Your task to perform on an android device: toggle airplane mode Image 0: 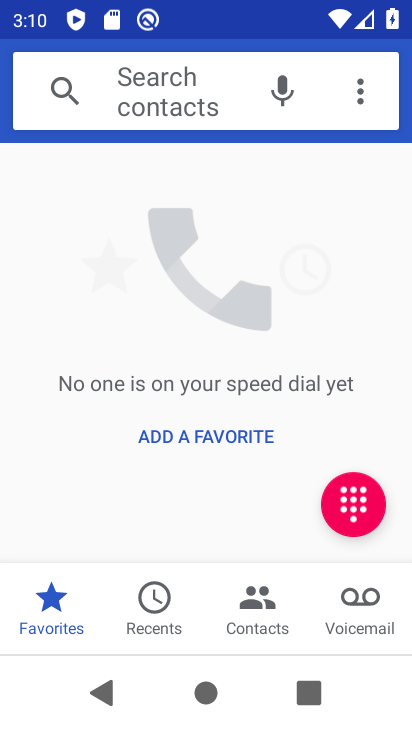
Step 0: press home button
Your task to perform on an android device: toggle airplane mode Image 1: 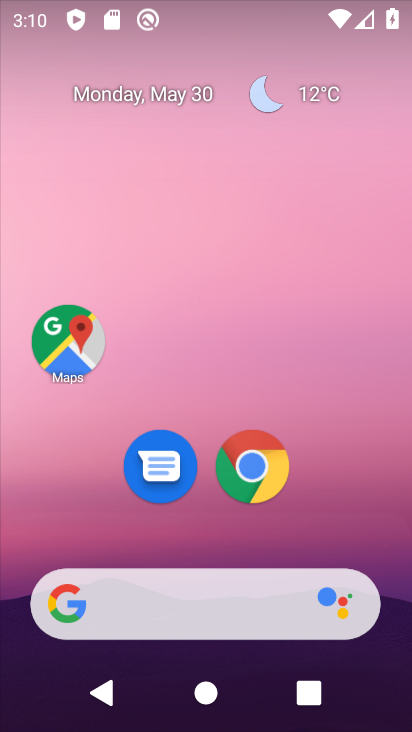
Step 1: drag from (324, 339) to (342, 88)
Your task to perform on an android device: toggle airplane mode Image 2: 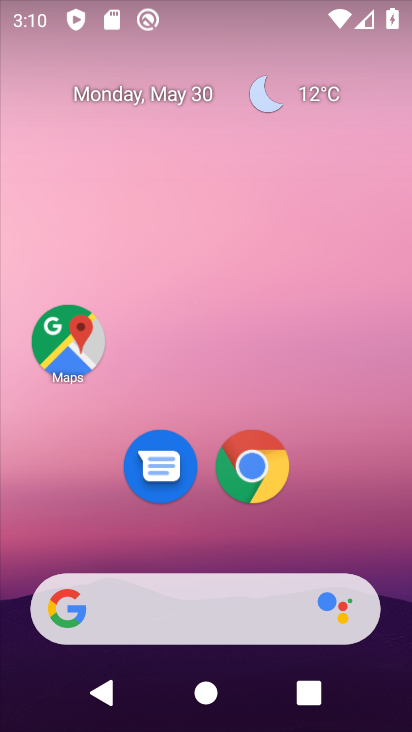
Step 2: drag from (303, 566) to (297, 113)
Your task to perform on an android device: toggle airplane mode Image 3: 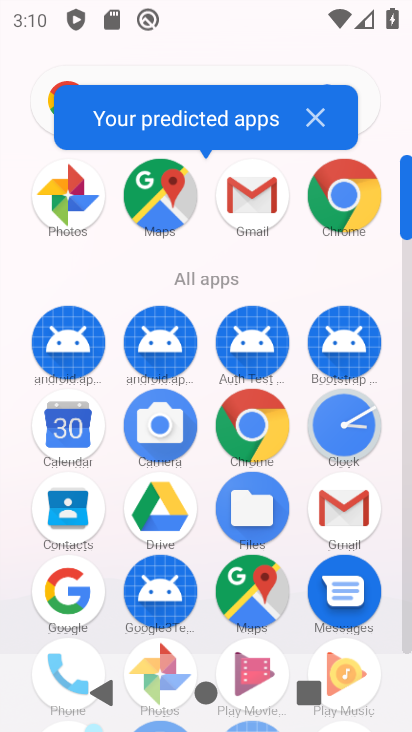
Step 3: drag from (165, 569) to (171, 221)
Your task to perform on an android device: toggle airplane mode Image 4: 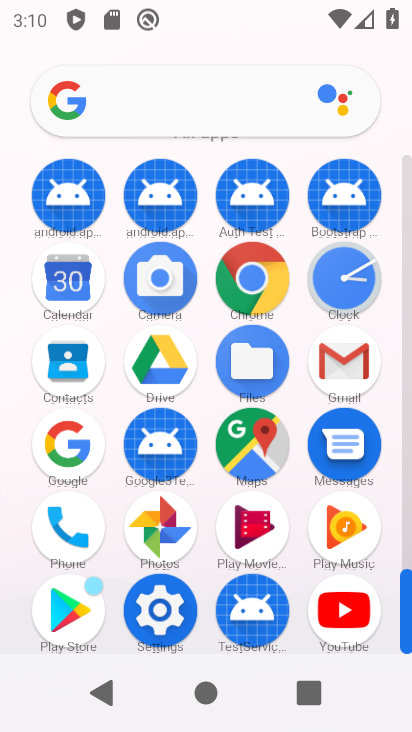
Step 4: drag from (163, 620) to (108, 239)
Your task to perform on an android device: toggle airplane mode Image 5: 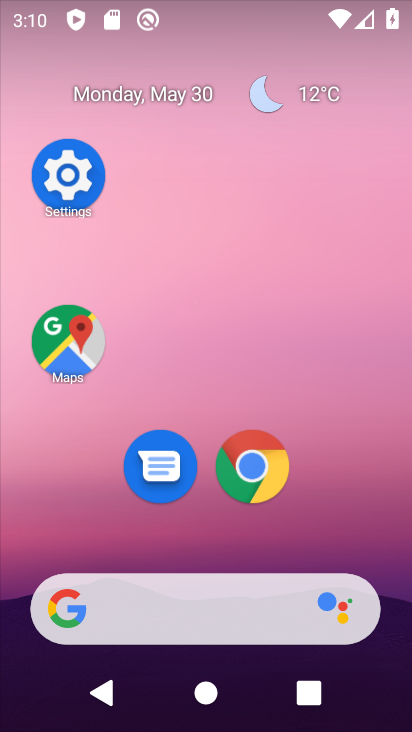
Step 5: click (75, 179)
Your task to perform on an android device: toggle airplane mode Image 6: 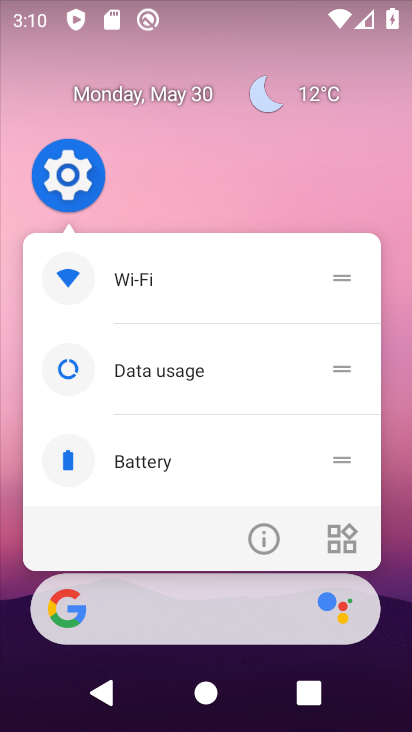
Step 6: click (98, 201)
Your task to perform on an android device: toggle airplane mode Image 7: 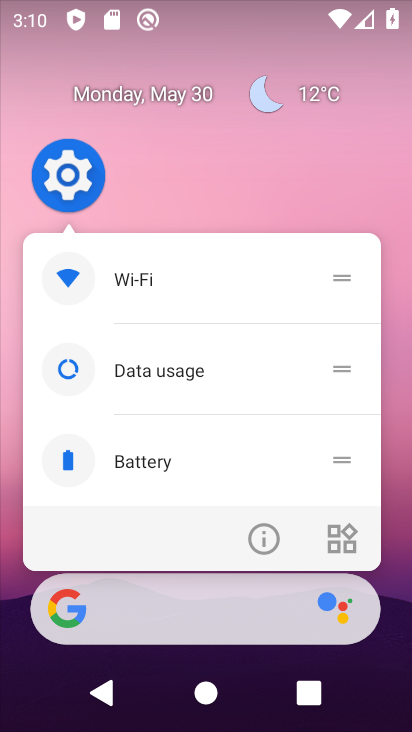
Step 7: click (86, 189)
Your task to perform on an android device: toggle airplane mode Image 8: 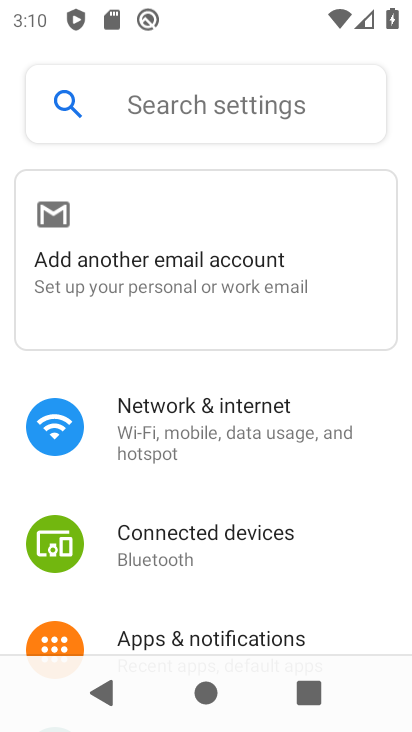
Step 8: click (188, 409)
Your task to perform on an android device: toggle airplane mode Image 9: 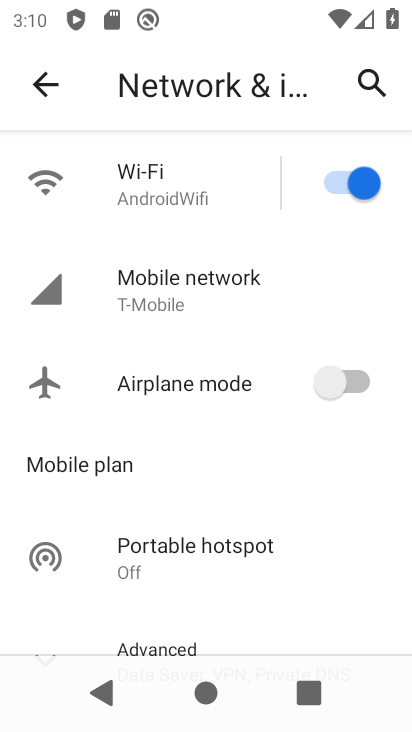
Step 9: click (346, 368)
Your task to perform on an android device: toggle airplane mode Image 10: 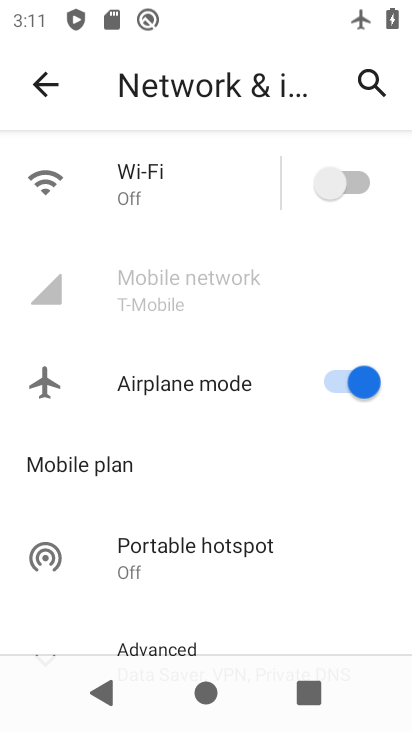
Step 10: task complete